Your task to perform on an android device: refresh tabs in the chrome app Image 0: 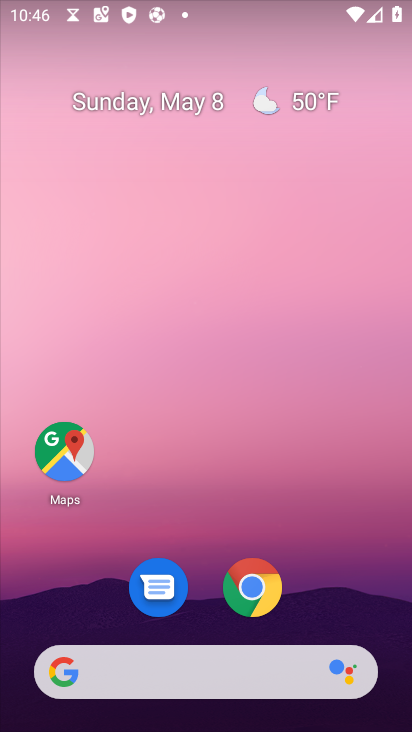
Step 0: click (255, 598)
Your task to perform on an android device: refresh tabs in the chrome app Image 1: 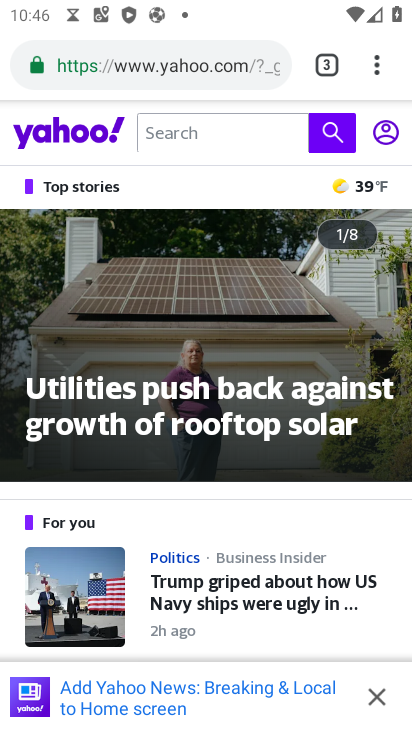
Step 1: click (376, 68)
Your task to perform on an android device: refresh tabs in the chrome app Image 2: 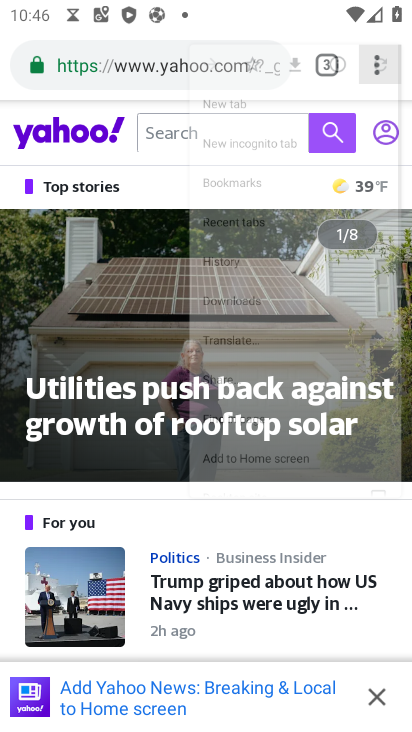
Step 2: click (372, 64)
Your task to perform on an android device: refresh tabs in the chrome app Image 3: 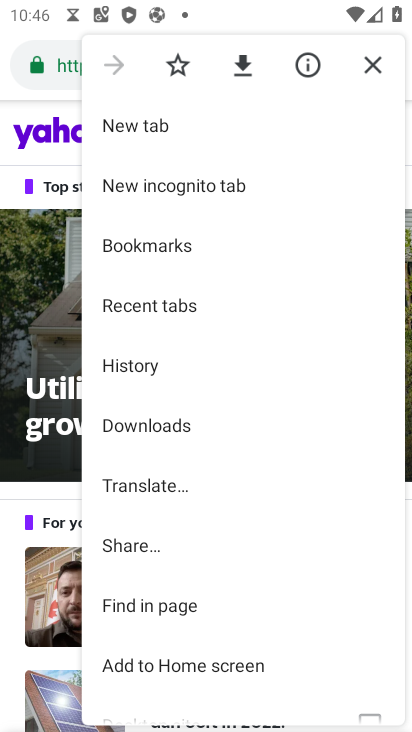
Step 3: task complete